Your task to perform on an android device: toggle notifications settings in the gmail app Image 0: 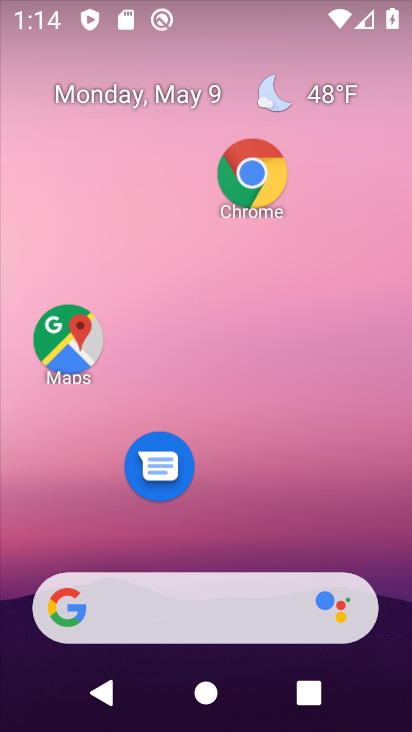
Step 0: drag from (217, 535) to (189, 171)
Your task to perform on an android device: toggle notifications settings in the gmail app Image 1: 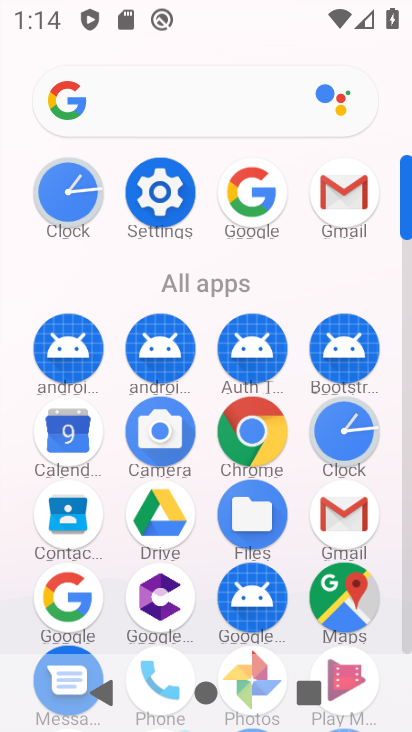
Step 1: click (351, 199)
Your task to perform on an android device: toggle notifications settings in the gmail app Image 2: 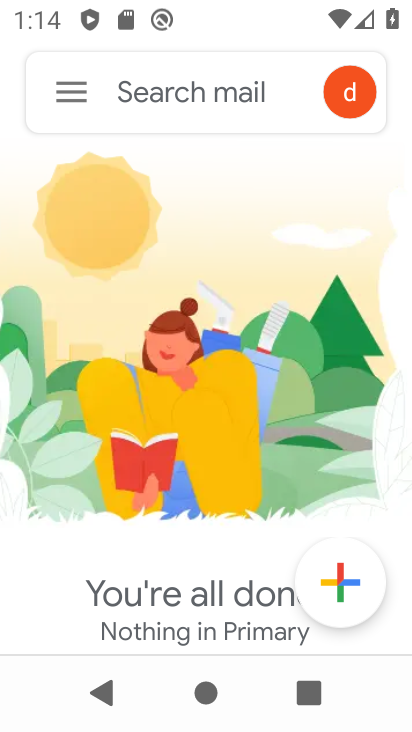
Step 2: click (71, 93)
Your task to perform on an android device: toggle notifications settings in the gmail app Image 3: 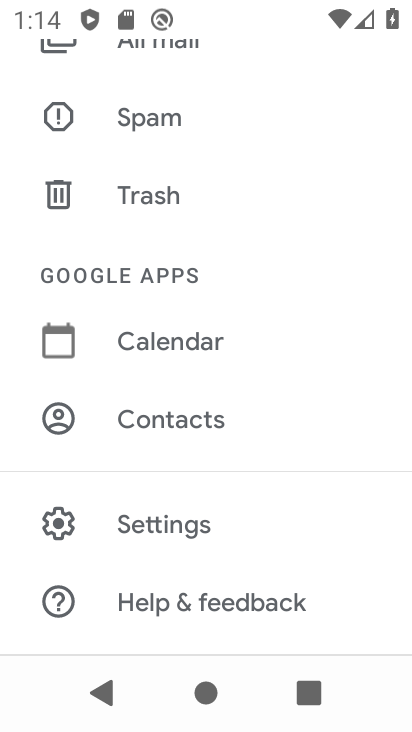
Step 3: click (136, 525)
Your task to perform on an android device: toggle notifications settings in the gmail app Image 4: 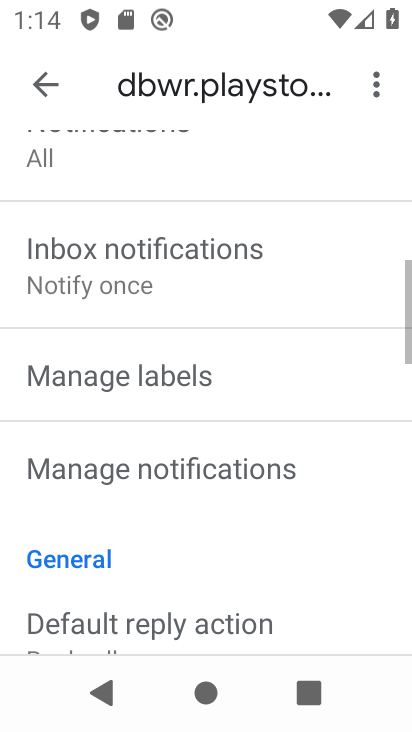
Step 4: drag from (194, 567) to (196, 432)
Your task to perform on an android device: toggle notifications settings in the gmail app Image 5: 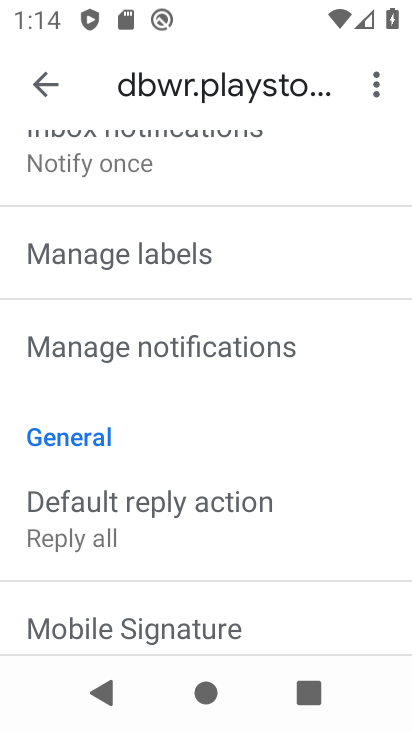
Step 5: click (159, 334)
Your task to perform on an android device: toggle notifications settings in the gmail app Image 6: 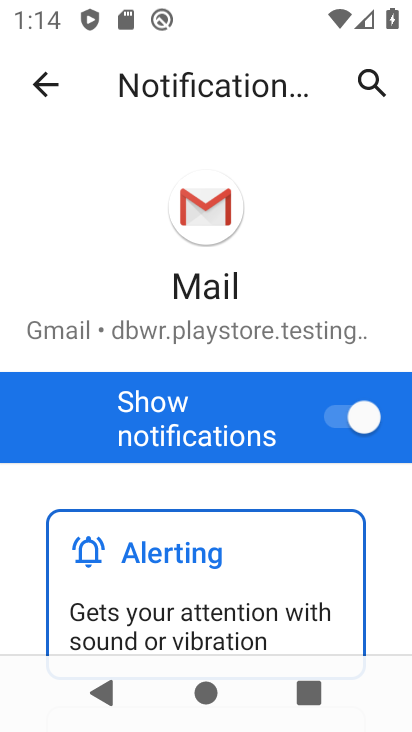
Step 6: click (338, 405)
Your task to perform on an android device: toggle notifications settings in the gmail app Image 7: 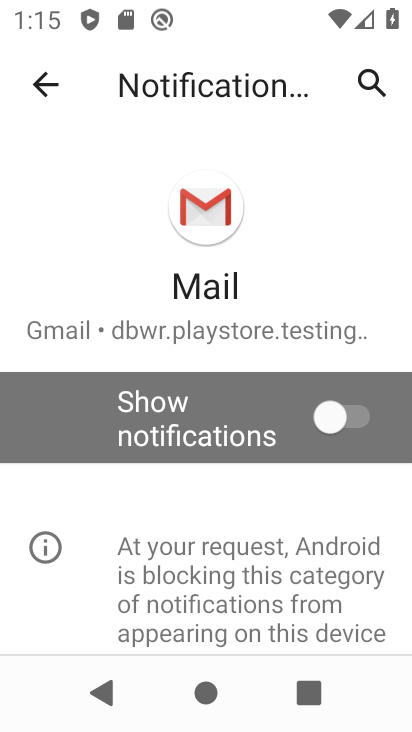
Step 7: task complete